Your task to perform on an android device: Search for vegetarian restaurants on Maps Image 0: 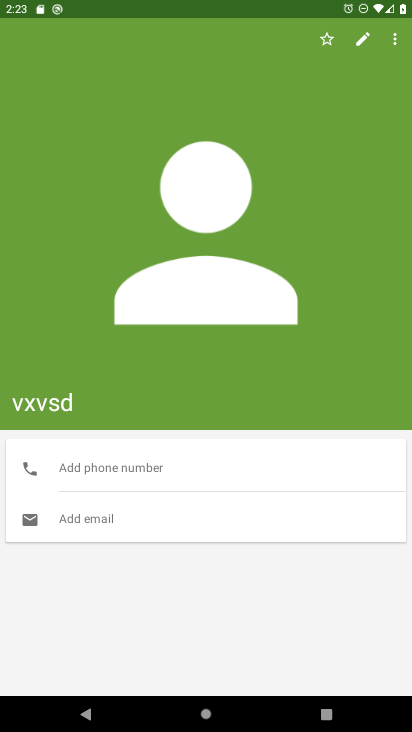
Step 0: press home button
Your task to perform on an android device: Search for vegetarian restaurants on Maps Image 1: 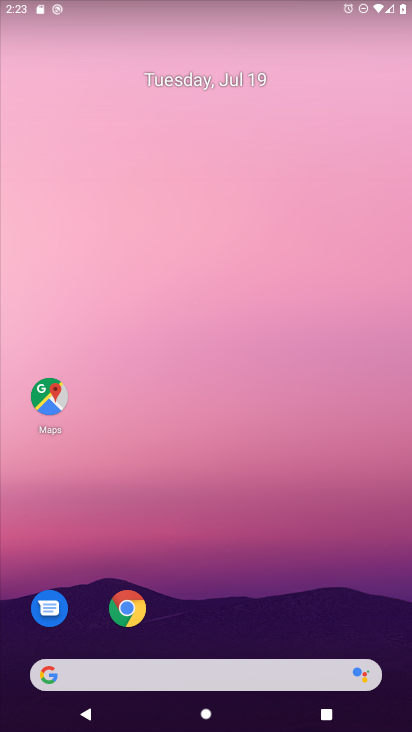
Step 1: drag from (232, 605) to (150, 167)
Your task to perform on an android device: Search for vegetarian restaurants on Maps Image 2: 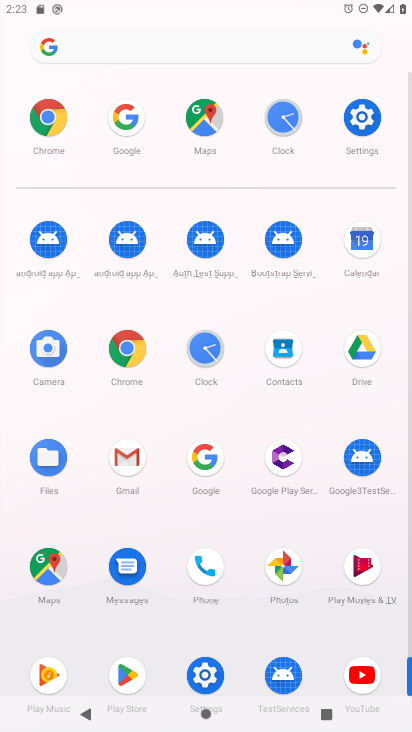
Step 2: click (36, 578)
Your task to perform on an android device: Search for vegetarian restaurants on Maps Image 3: 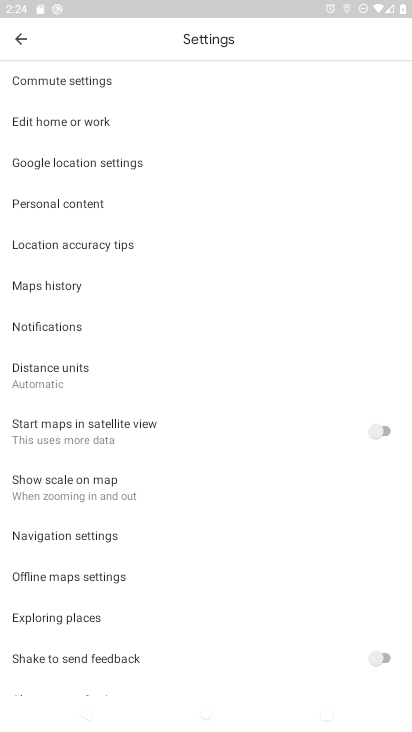
Step 3: press back button
Your task to perform on an android device: Search for vegetarian restaurants on Maps Image 4: 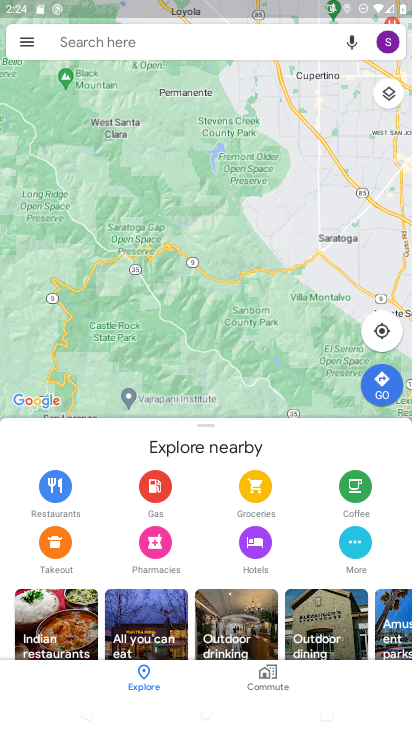
Step 4: click (171, 43)
Your task to perform on an android device: Search for vegetarian restaurants on Maps Image 5: 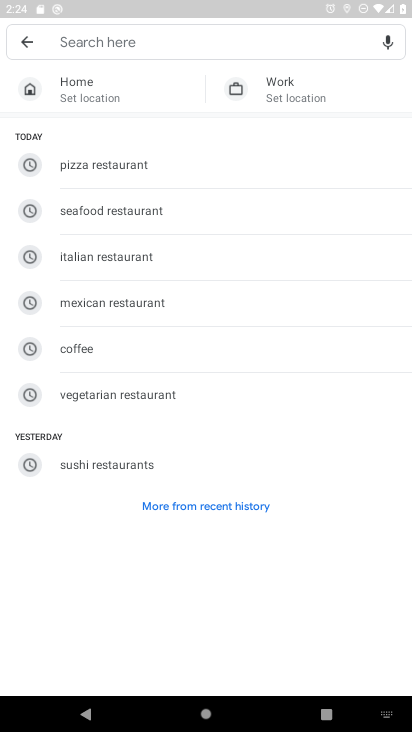
Step 5: type "vegetarian restaurants "
Your task to perform on an android device: Search for vegetarian restaurants on Maps Image 6: 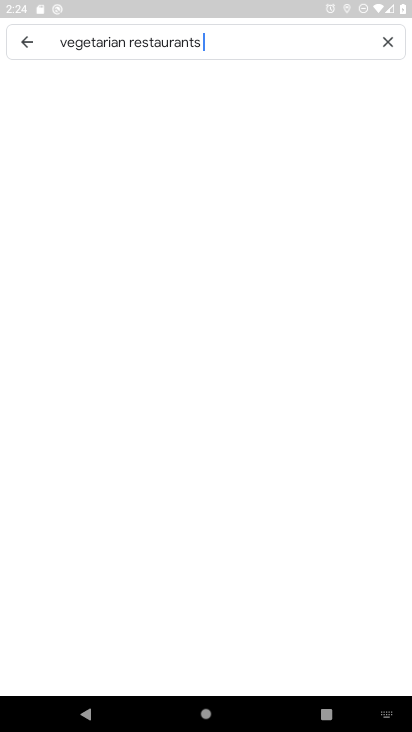
Step 6: type ""
Your task to perform on an android device: Search for vegetarian restaurants on Maps Image 7: 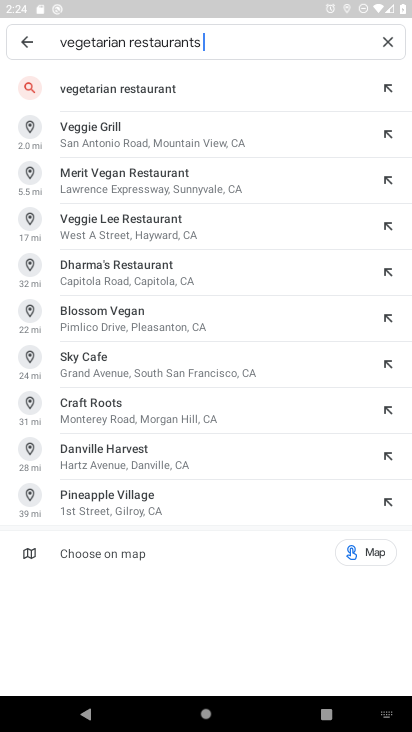
Step 7: click (298, 209)
Your task to perform on an android device: Search for vegetarian restaurants on Maps Image 8: 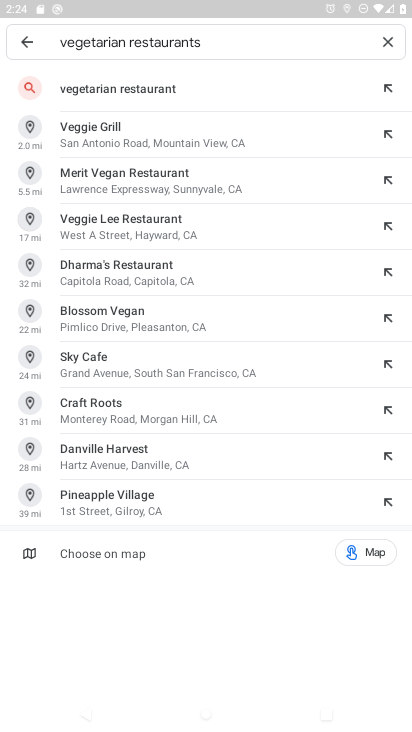
Step 8: click (163, 82)
Your task to perform on an android device: Search for vegetarian restaurants on Maps Image 9: 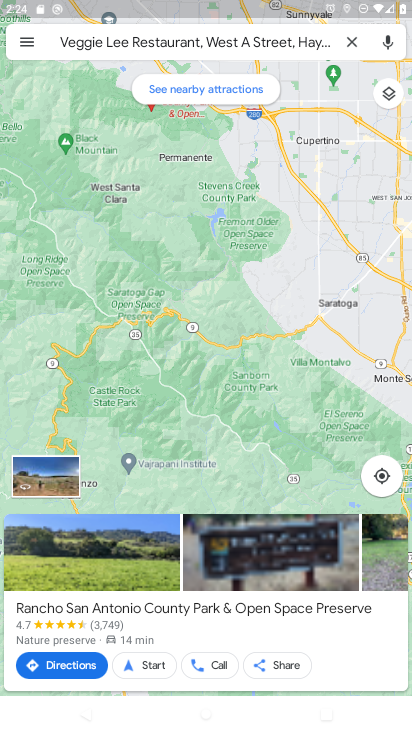
Step 9: task complete